Your task to perform on an android device: turn on the 12-hour format for clock Image 0: 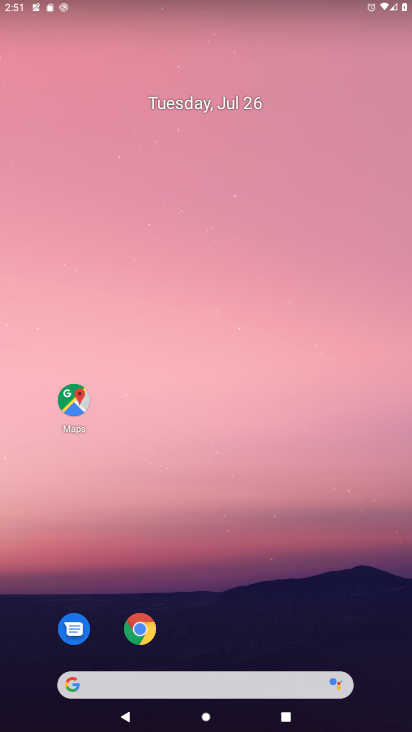
Step 0: drag from (208, 636) to (199, 148)
Your task to perform on an android device: turn on the 12-hour format for clock Image 1: 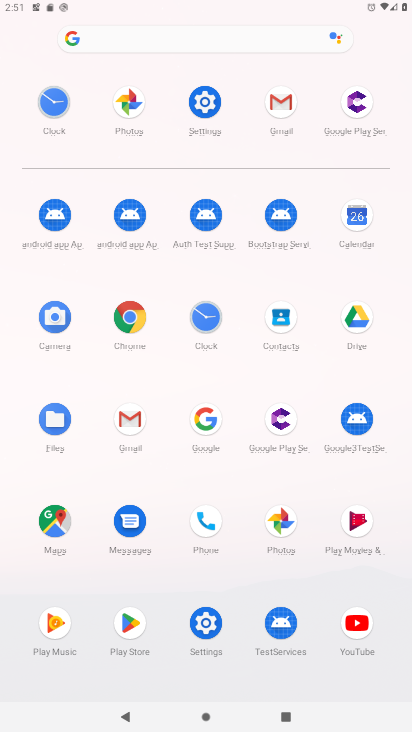
Step 1: click (68, 114)
Your task to perform on an android device: turn on the 12-hour format for clock Image 2: 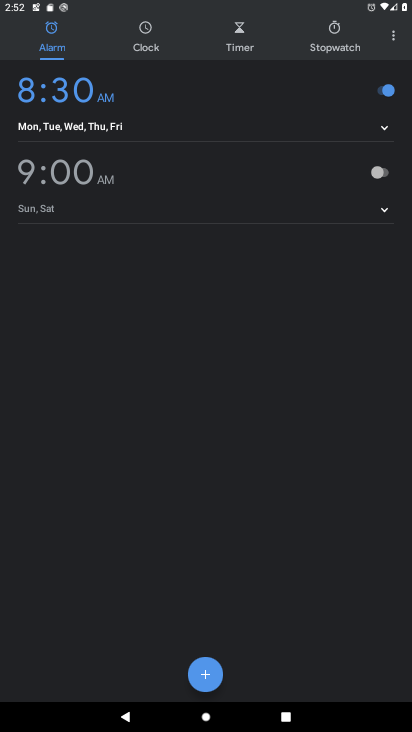
Step 2: click (396, 39)
Your task to perform on an android device: turn on the 12-hour format for clock Image 3: 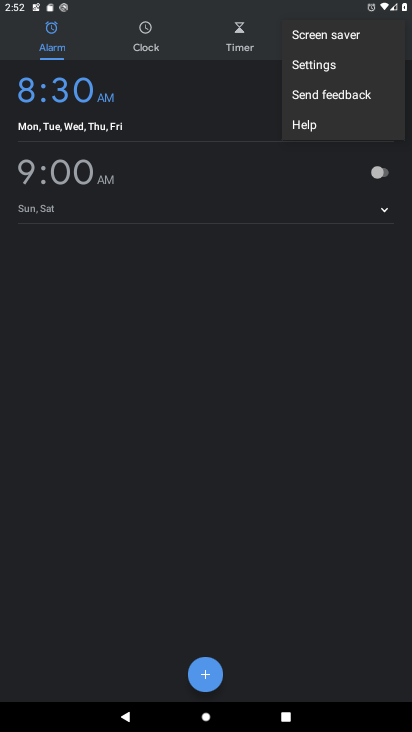
Step 3: click (328, 58)
Your task to perform on an android device: turn on the 12-hour format for clock Image 4: 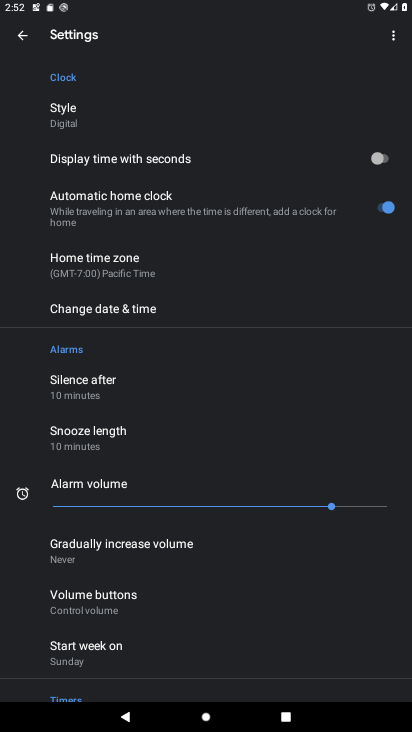
Step 4: click (171, 308)
Your task to perform on an android device: turn on the 12-hour format for clock Image 5: 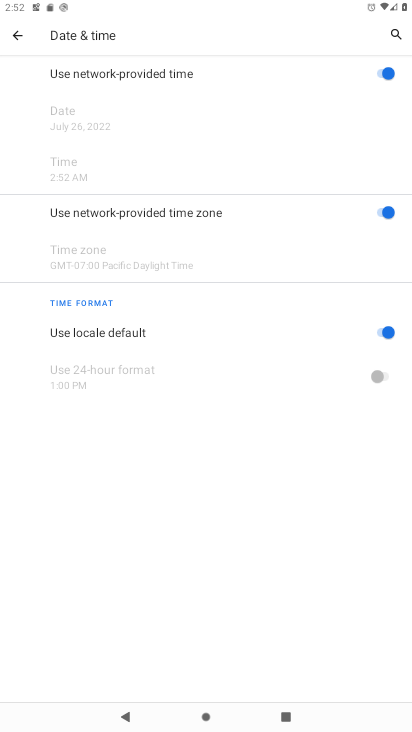
Step 5: task complete